Your task to perform on an android device: Turn off the flashlight Image 0: 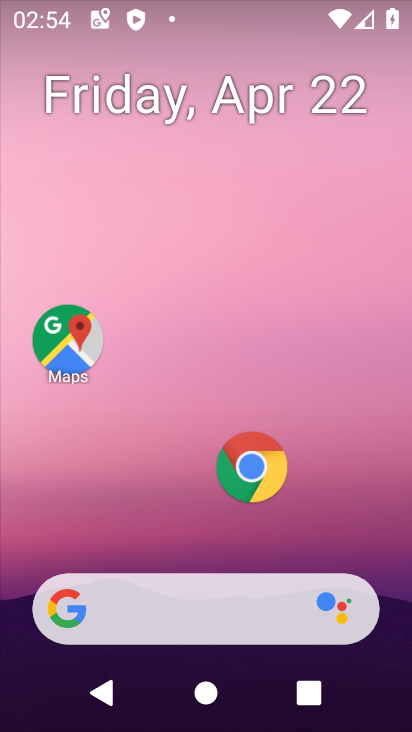
Step 0: click (310, 357)
Your task to perform on an android device: Turn off the flashlight Image 1: 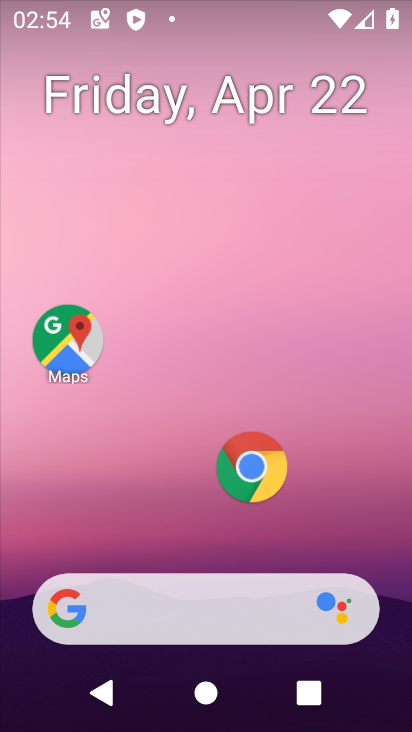
Step 1: drag from (283, 538) to (258, 194)
Your task to perform on an android device: Turn off the flashlight Image 2: 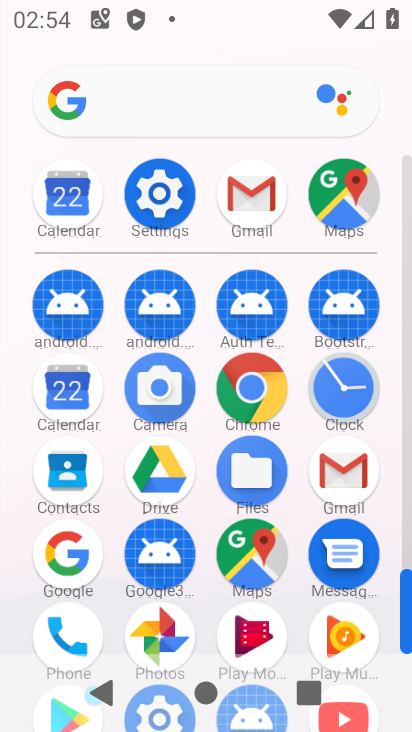
Step 2: click (152, 188)
Your task to perform on an android device: Turn off the flashlight Image 3: 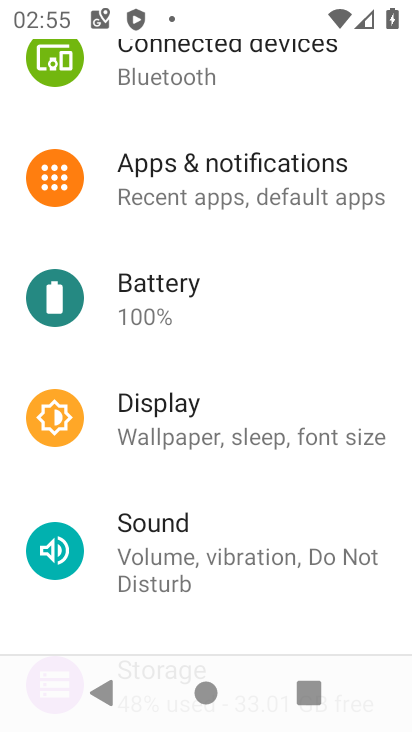
Step 3: drag from (223, 181) to (231, 572)
Your task to perform on an android device: Turn off the flashlight Image 4: 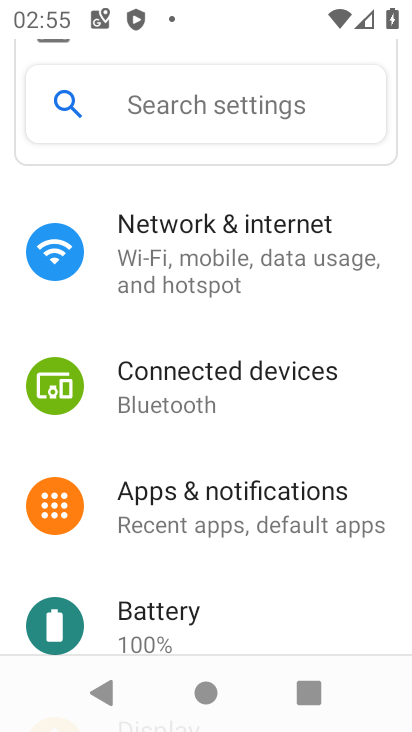
Step 4: drag from (212, 294) to (212, 495)
Your task to perform on an android device: Turn off the flashlight Image 5: 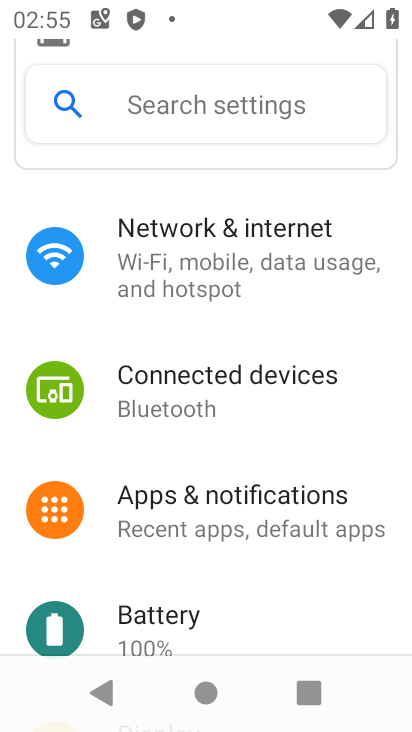
Step 5: drag from (277, 494) to (293, 258)
Your task to perform on an android device: Turn off the flashlight Image 6: 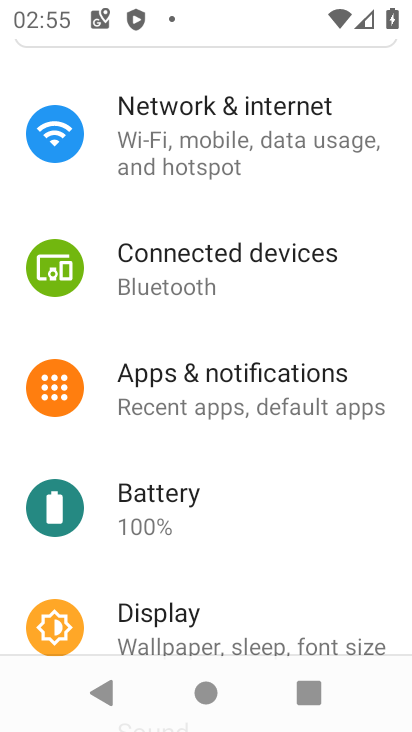
Step 6: click (166, 620)
Your task to perform on an android device: Turn off the flashlight Image 7: 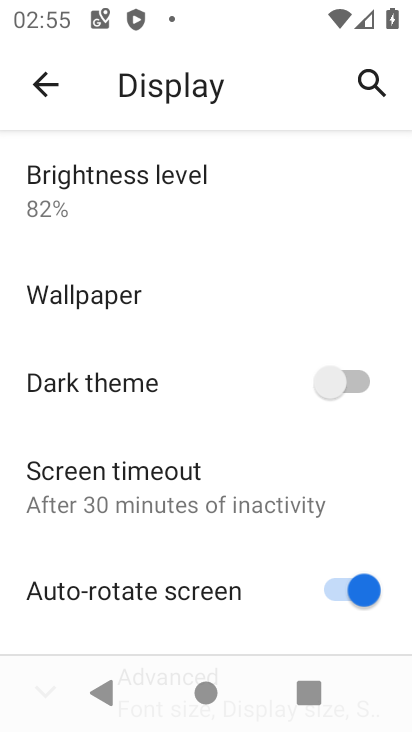
Step 7: task complete